Your task to perform on an android device: Find coffee shops on Maps Image 0: 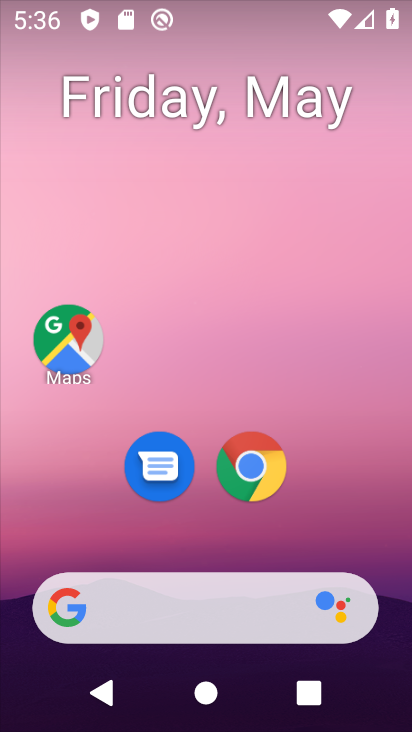
Step 0: drag from (295, 260) to (237, 0)
Your task to perform on an android device: Find coffee shops on Maps Image 1: 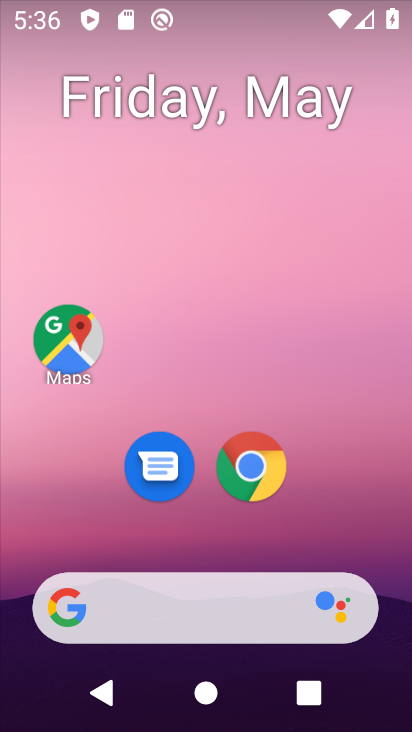
Step 1: drag from (14, 580) to (31, 82)
Your task to perform on an android device: Find coffee shops on Maps Image 2: 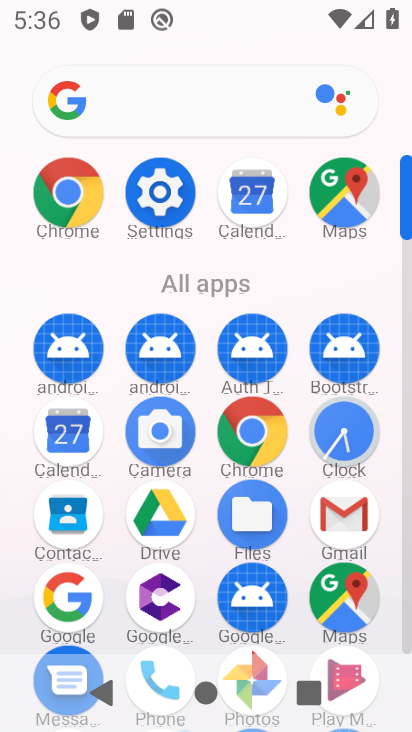
Step 2: drag from (15, 559) to (10, 235)
Your task to perform on an android device: Find coffee shops on Maps Image 3: 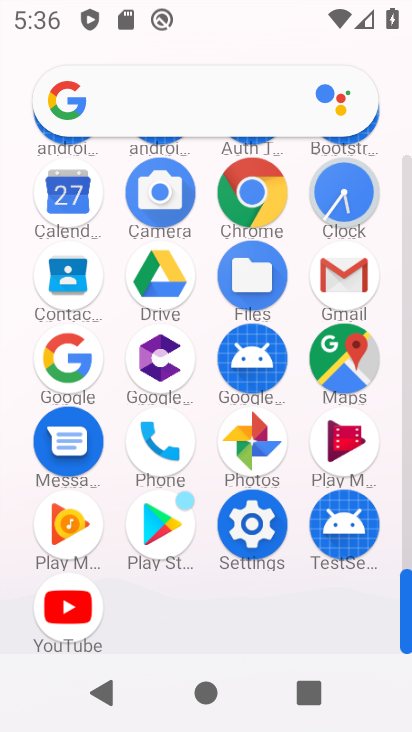
Step 3: click (67, 192)
Your task to perform on an android device: Find coffee shops on Maps Image 4: 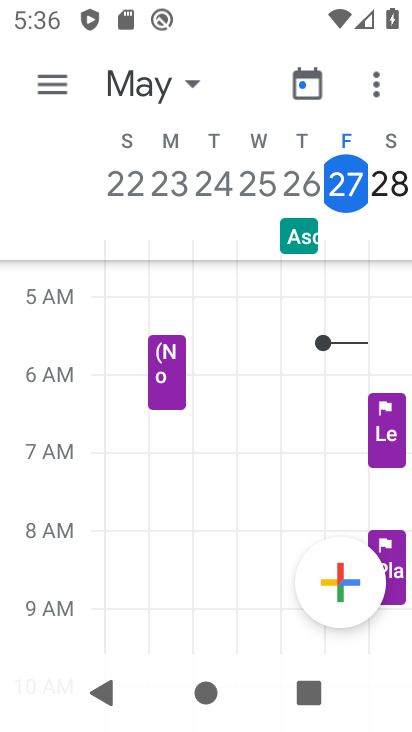
Step 4: press back button
Your task to perform on an android device: Find coffee shops on Maps Image 5: 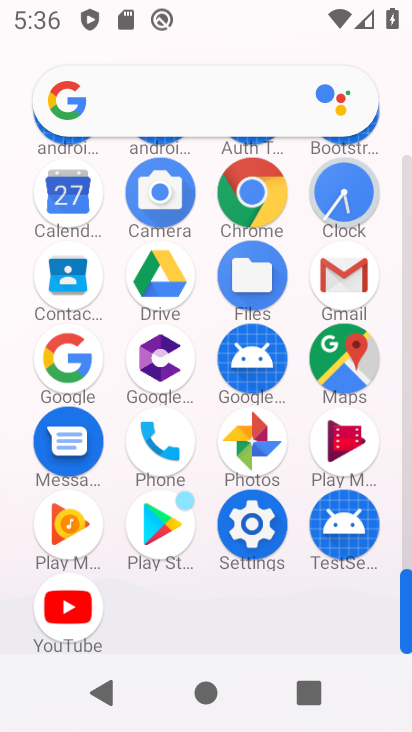
Step 5: press back button
Your task to perform on an android device: Find coffee shops on Maps Image 6: 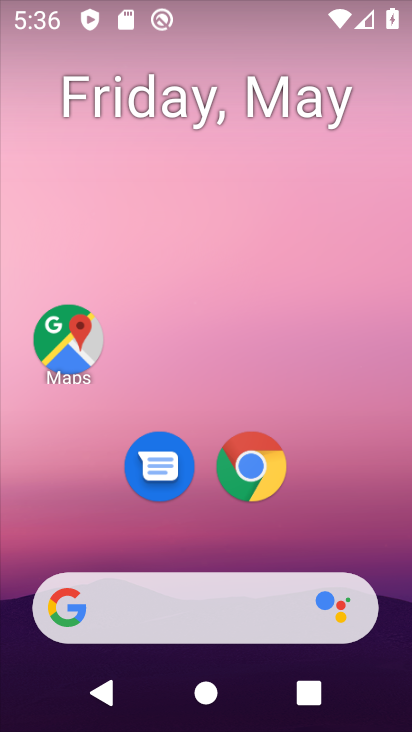
Step 6: click (64, 332)
Your task to perform on an android device: Find coffee shops on Maps Image 7: 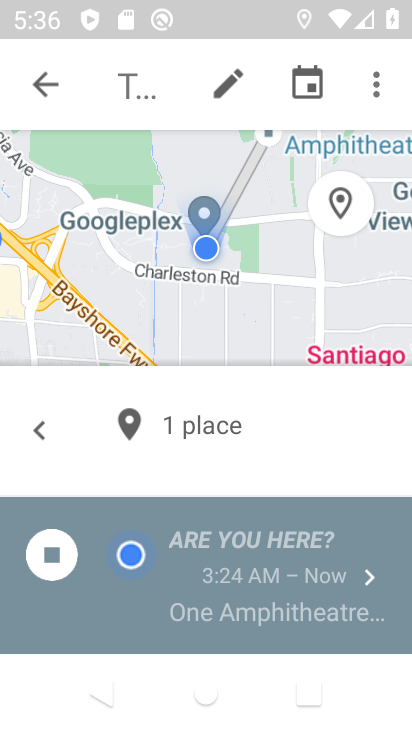
Step 7: click (41, 78)
Your task to perform on an android device: Find coffee shops on Maps Image 8: 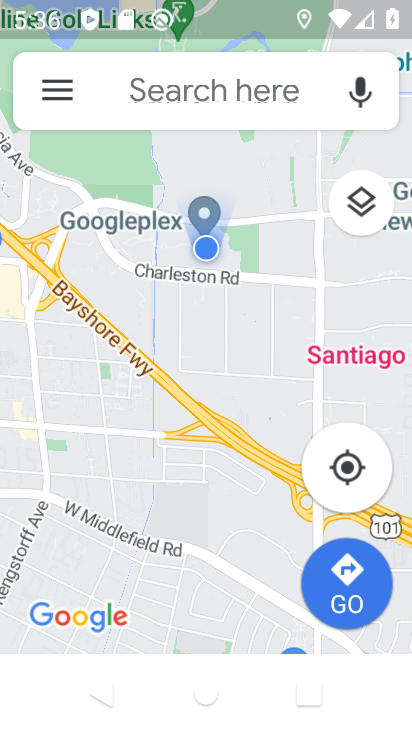
Step 8: click (313, 100)
Your task to perform on an android device: Find coffee shops on Maps Image 9: 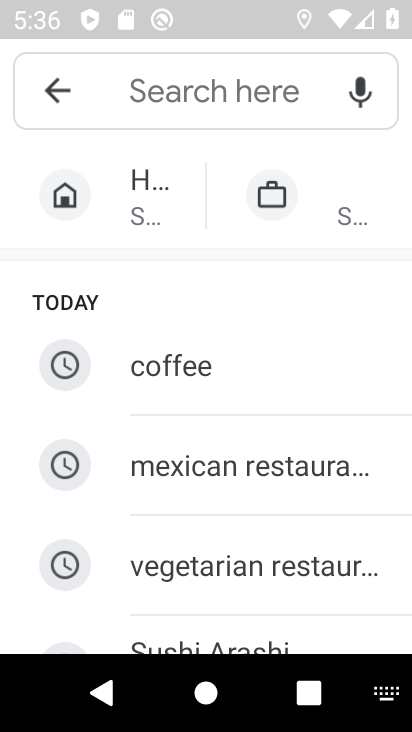
Step 9: click (184, 371)
Your task to perform on an android device: Find coffee shops on Maps Image 10: 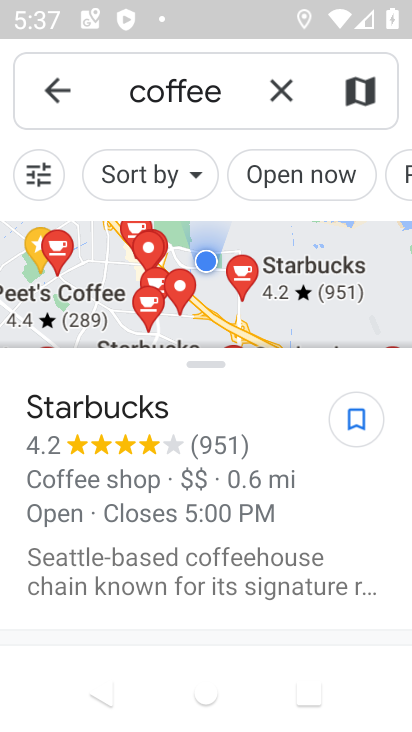
Step 10: task complete